Your task to perform on an android device: What's the weather going to be this weekend? Image 0: 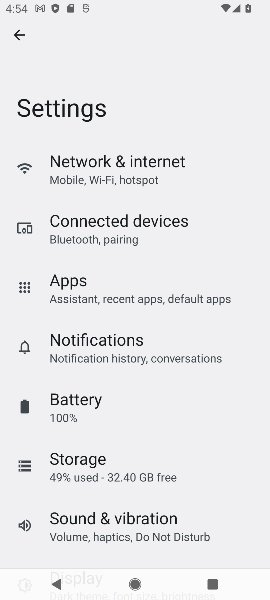
Step 0: press home button
Your task to perform on an android device: What's the weather going to be this weekend? Image 1: 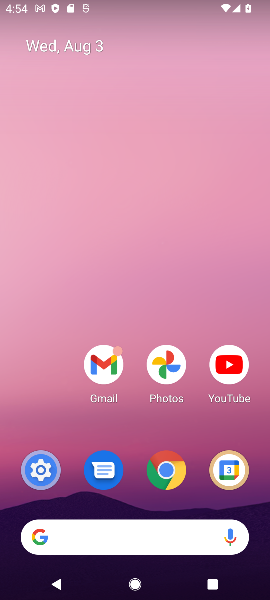
Step 1: drag from (208, 418) to (114, 2)
Your task to perform on an android device: What's the weather going to be this weekend? Image 2: 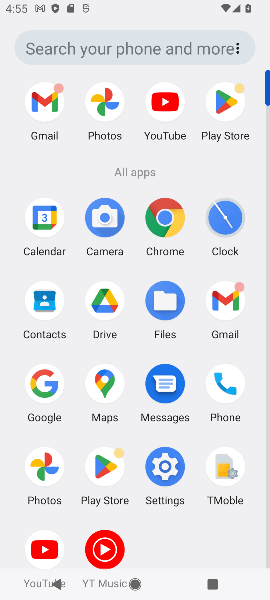
Step 2: click (167, 221)
Your task to perform on an android device: What's the weather going to be this weekend? Image 3: 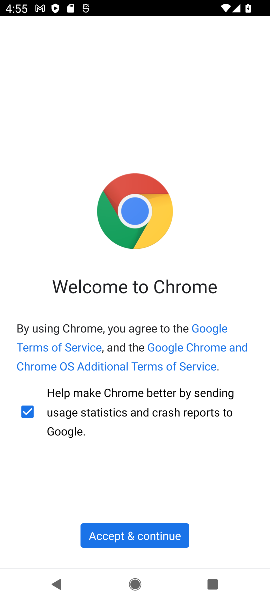
Step 3: click (167, 532)
Your task to perform on an android device: What's the weather going to be this weekend? Image 4: 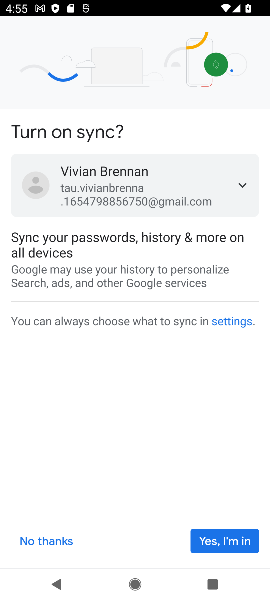
Step 4: click (224, 539)
Your task to perform on an android device: What's the weather going to be this weekend? Image 5: 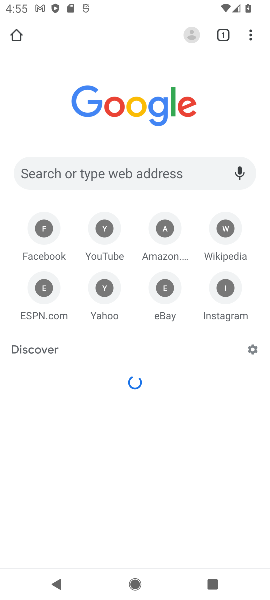
Step 5: click (133, 180)
Your task to perform on an android device: What's the weather going to be this weekend? Image 6: 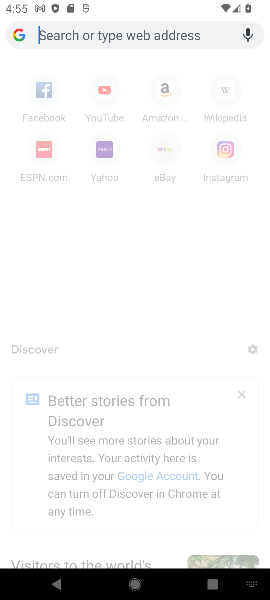
Step 6: type "weather"
Your task to perform on an android device: What's the weather going to be this weekend? Image 7: 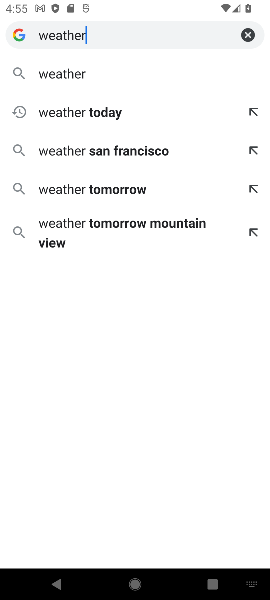
Step 7: click (65, 74)
Your task to perform on an android device: What's the weather going to be this weekend? Image 8: 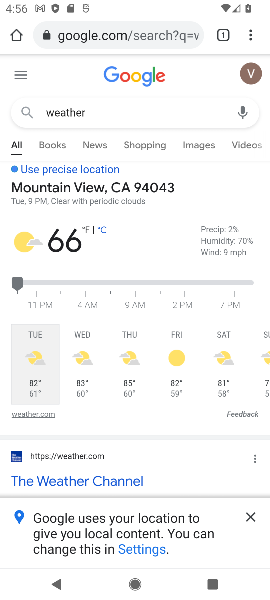
Step 8: click (226, 356)
Your task to perform on an android device: What's the weather going to be this weekend? Image 9: 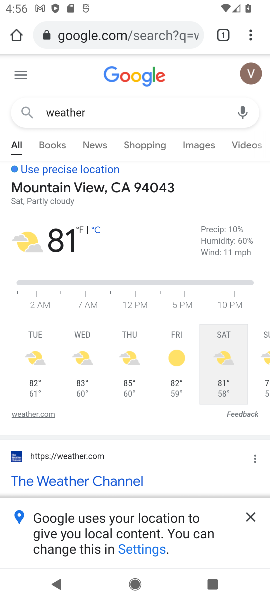
Step 9: task complete